Your task to perform on an android device: Open Chrome and go to the settings page Image 0: 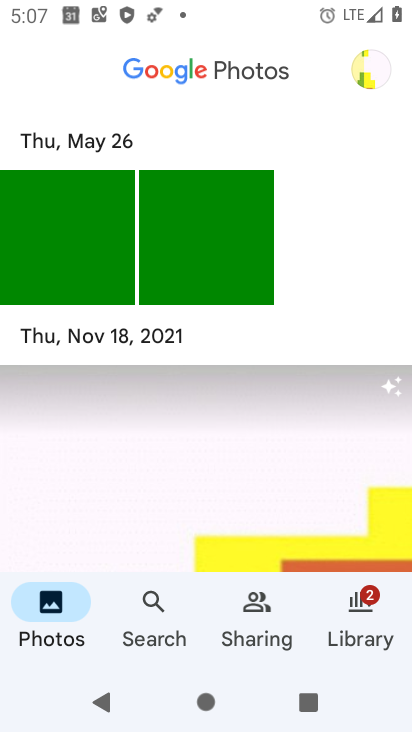
Step 0: press home button
Your task to perform on an android device: Open Chrome and go to the settings page Image 1: 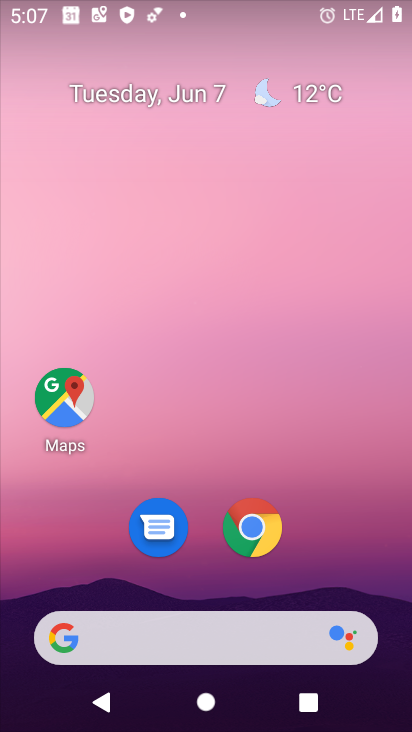
Step 1: click (256, 526)
Your task to perform on an android device: Open Chrome and go to the settings page Image 2: 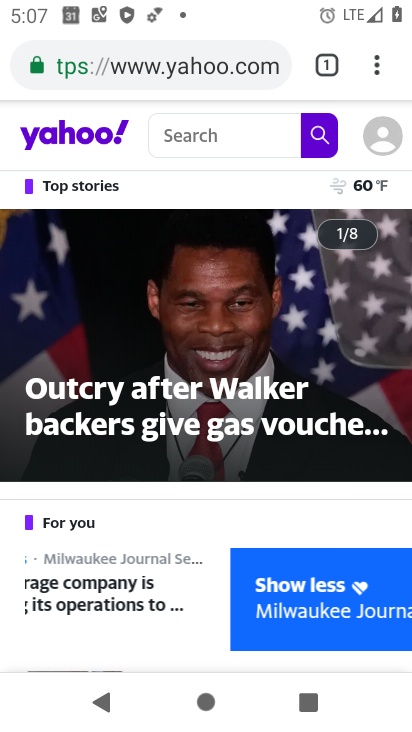
Step 2: click (376, 63)
Your task to perform on an android device: Open Chrome and go to the settings page Image 3: 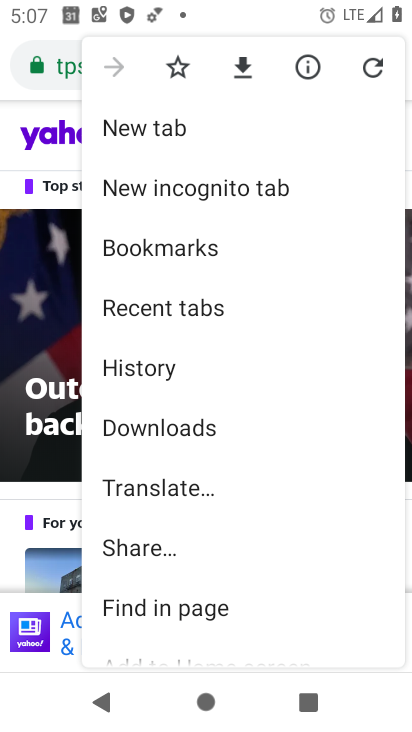
Step 3: drag from (200, 454) to (207, 359)
Your task to perform on an android device: Open Chrome and go to the settings page Image 4: 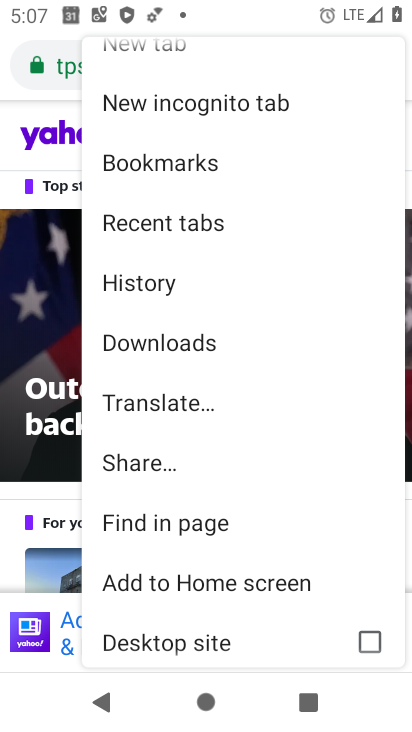
Step 4: drag from (156, 495) to (193, 381)
Your task to perform on an android device: Open Chrome and go to the settings page Image 5: 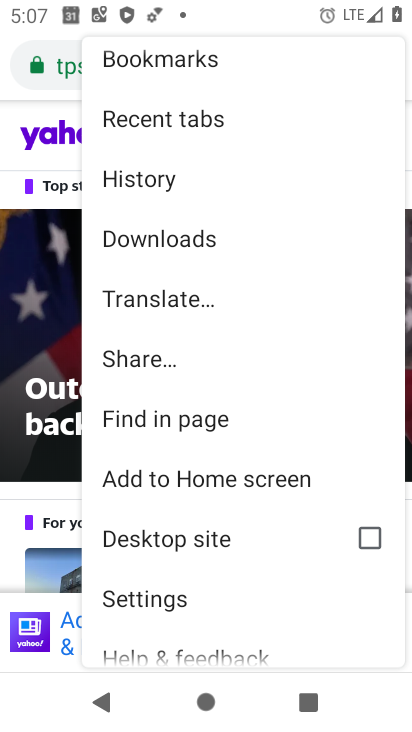
Step 5: click (164, 589)
Your task to perform on an android device: Open Chrome and go to the settings page Image 6: 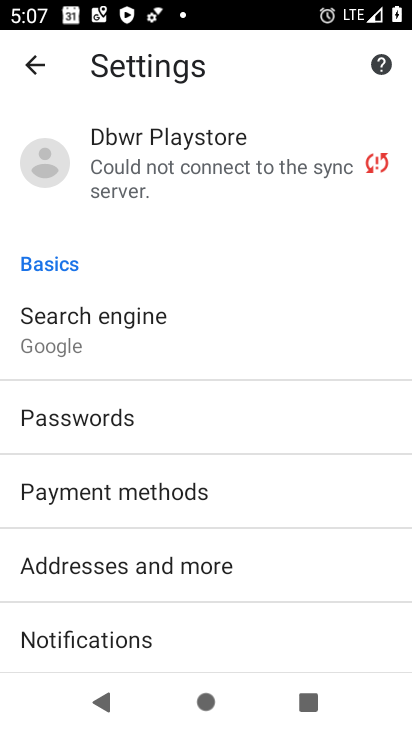
Step 6: task complete